Your task to perform on an android device: turn on the 24-hour format for clock Image 0: 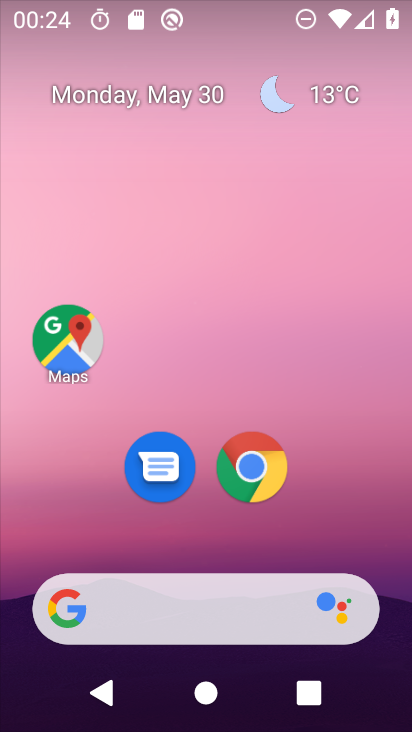
Step 0: drag from (197, 514) to (197, 194)
Your task to perform on an android device: turn on the 24-hour format for clock Image 1: 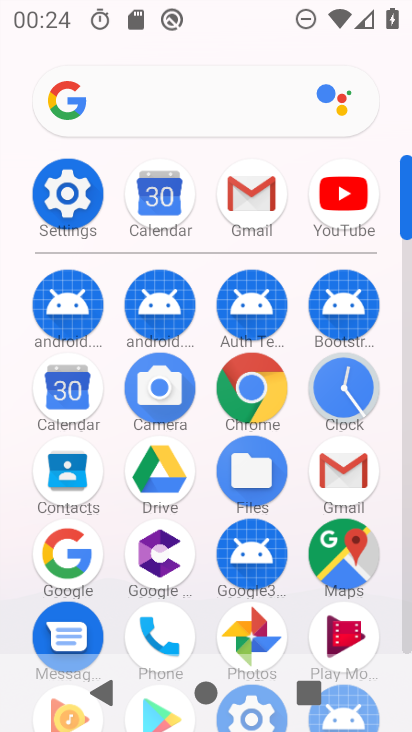
Step 1: click (339, 400)
Your task to perform on an android device: turn on the 24-hour format for clock Image 2: 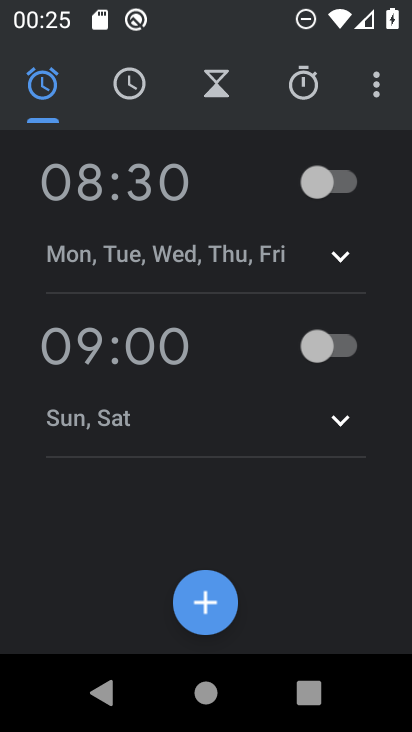
Step 2: click (371, 87)
Your task to perform on an android device: turn on the 24-hour format for clock Image 3: 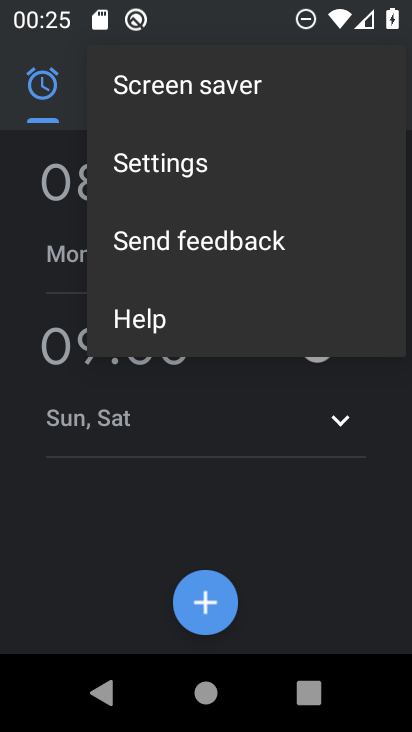
Step 3: click (176, 168)
Your task to perform on an android device: turn on the 24-hour format for clock Image 4: 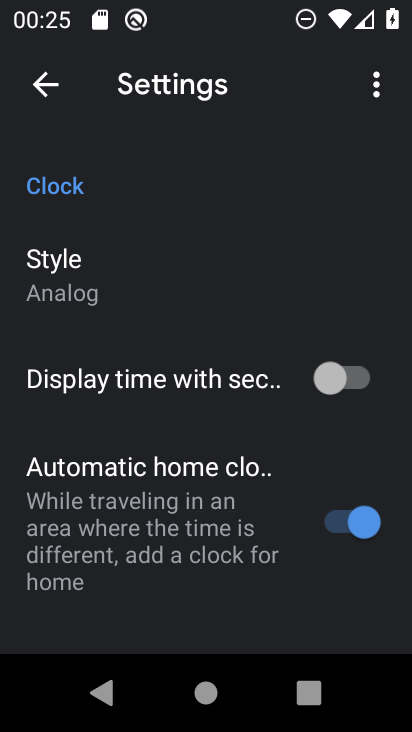
Step 4: drag from (196, 563) to (219, 183)
Your task to perform on an android device: turn on the 24-hour format for clock Image 5: 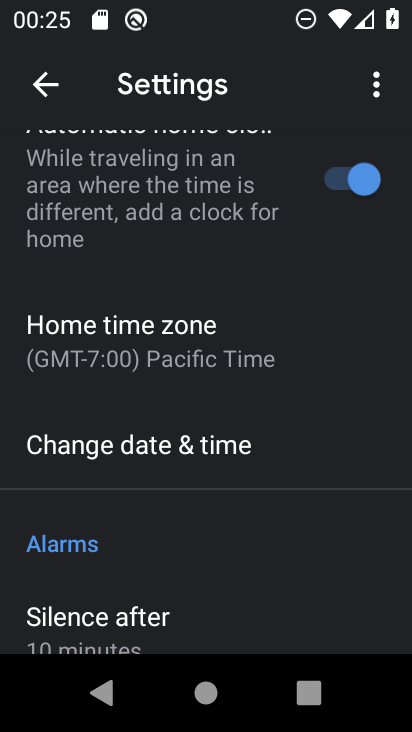
Step 5: click (214, 424)
Your task to perform on an android device: turn on the 24-hour format for clock Image 6: 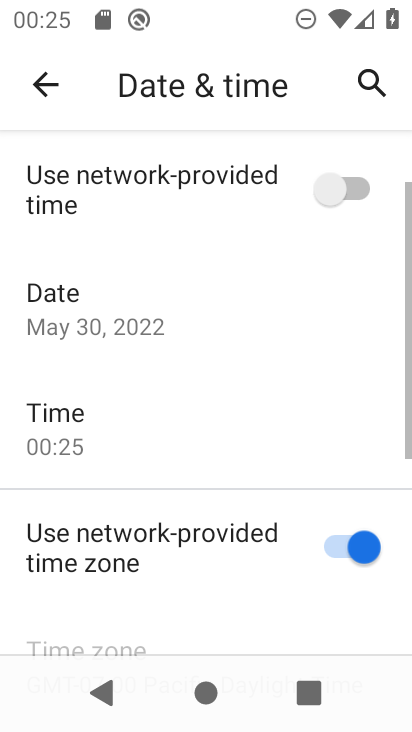
Step 6: task complete